Your task to perform on an android device: What's the weather going to be tomorrow? Image 0: 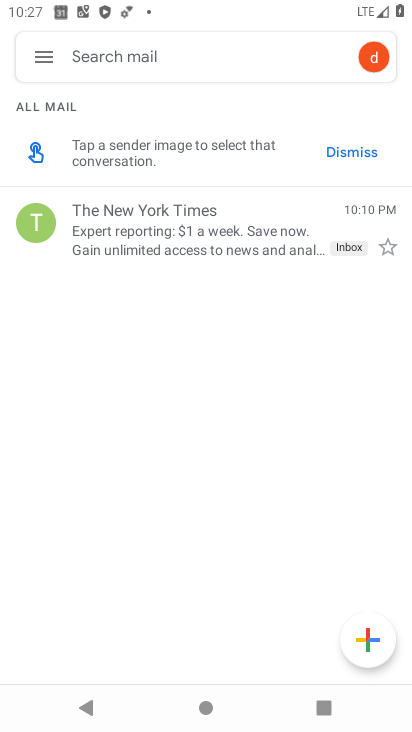
Step 0: press home button
Your task to perform on an android device: What's the weather going to be tomorrow? Image 1: 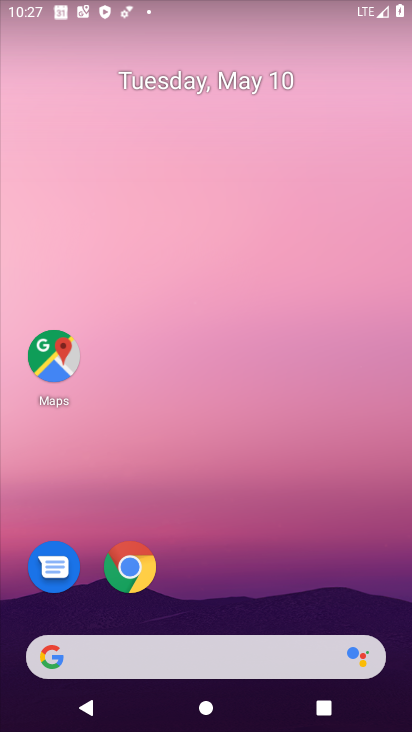
Step 1: click (166, 662)
Your task to perform on an android device: What's the weather going to be tomorrow? Image 2: 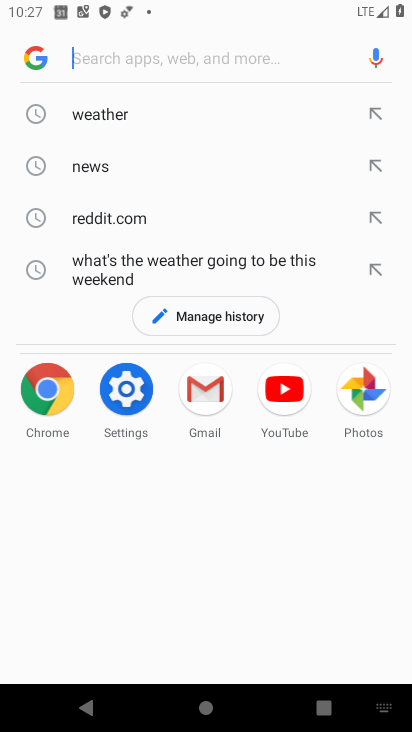
Step 2: click (91, 115)
Your task to perform on an android device: What's the weather going to be tomorrow? Image 3: 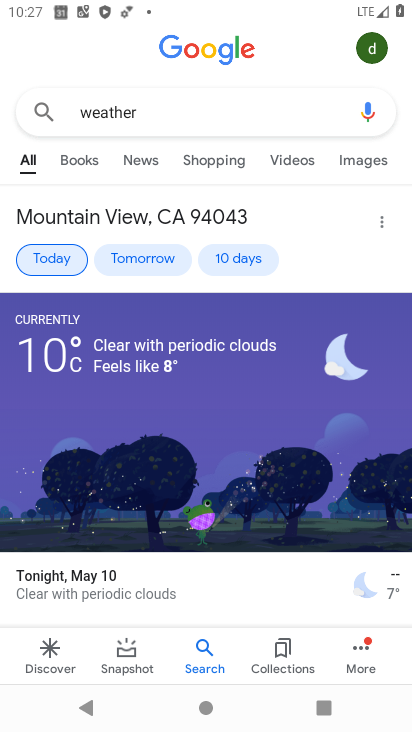
Step 3: click (136, 260)
Your task to perform on an android device: What's the weather going to be tomorrow? Image 4: 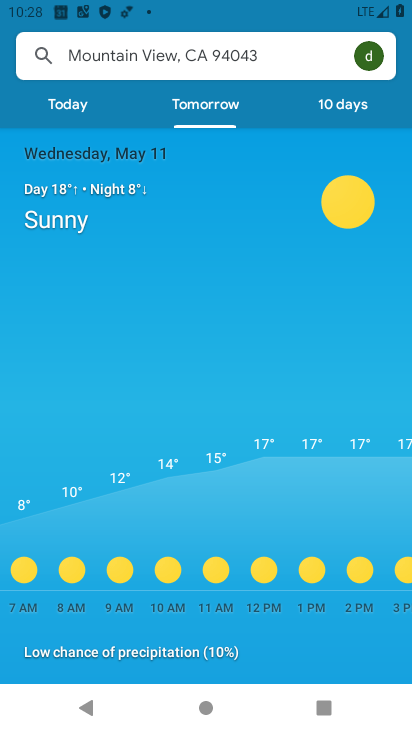
Step 4: task complete